Your task to perform on an android device: Open Google Maps Image 0: 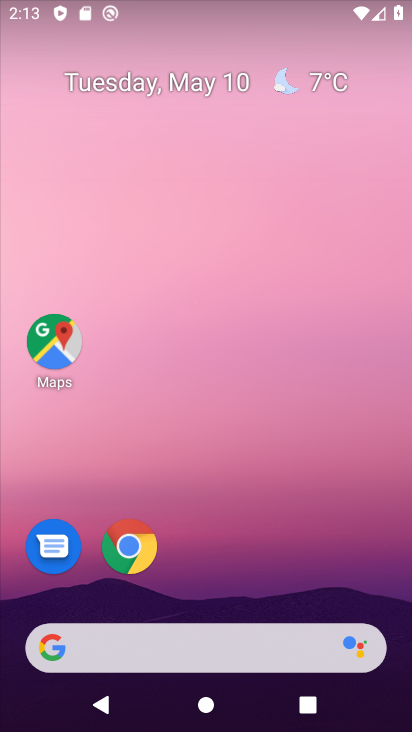
Step 0: click (47, 341)
Your task to perform on an android device: Open Google Maps Image 1: 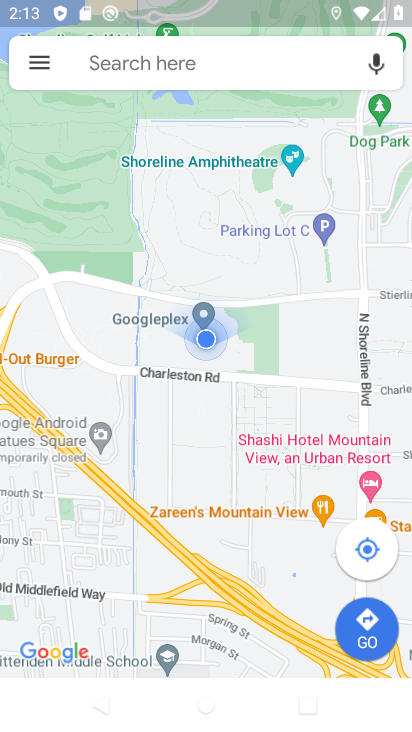
Step 1: task complete